Your task to perform on an android device: Open Youtube and go to "Your channel" Image 0: 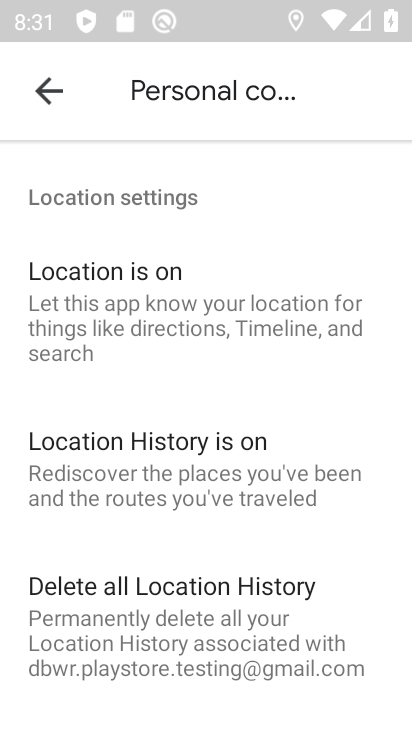
Step 0: press home button
Your task to perform on an android device: Open Youtube and go to "Your channel" Image 1: 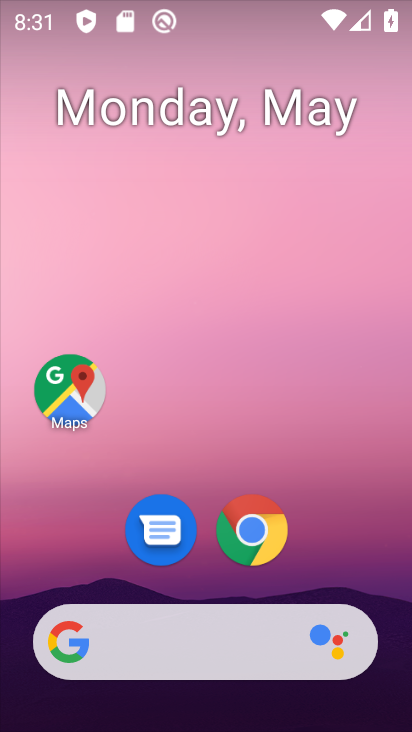
Step 1: drag from (402, 647) to (312, 117)
Your task to perform on an android device: Open Youtube and go to "Your channel" Image 2: 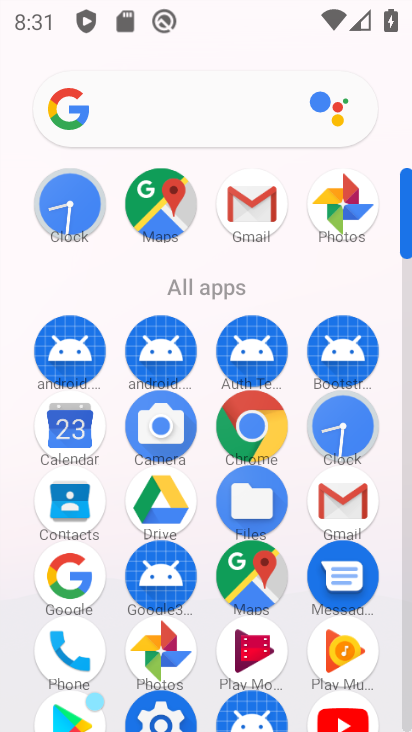
Step 2: click (350, 710)
Your task to perform on an android device: Open Youtube and go to "Your channel" Image 3: 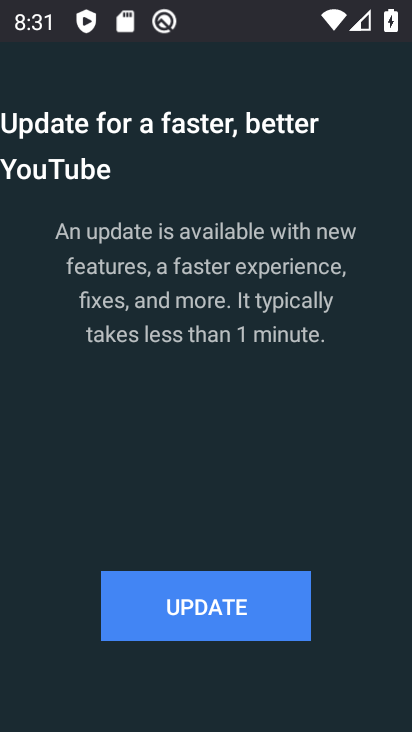
Step 3: click (240, 622)
Your task to perform on an android device: Open Youtube and go to "Your channel" Image 4: 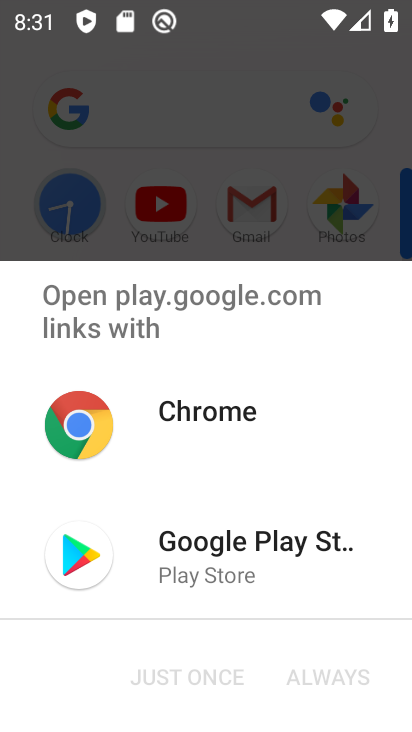
Step 4: click (246, 579)
Your task to perform on an android device: Open Youtube and go to "Your channel" Image 5: 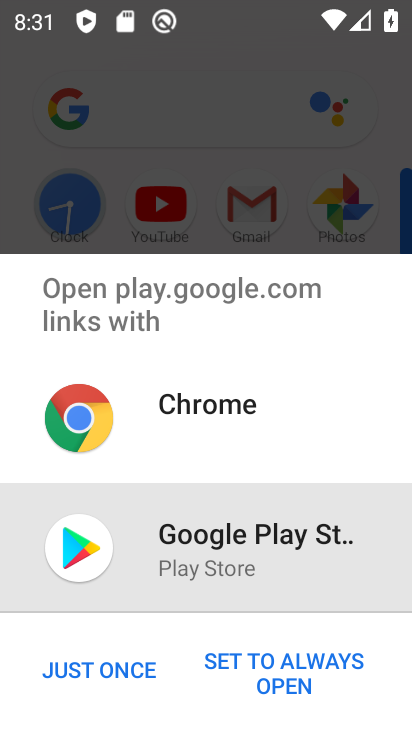
Step 5: click (132, 671)
Your task to perform on an android device: Open Youtube and go to "Your channel" Image 6: 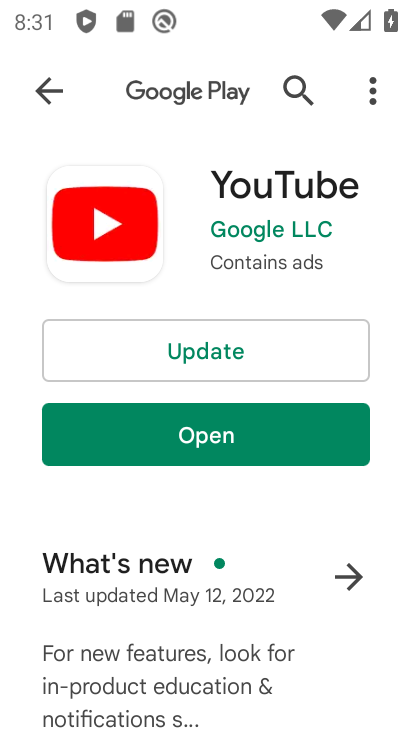
Step 6: click (303, 345)
Your task to perform on an android device: Open Youtube and go to "Your channel" Image 7: 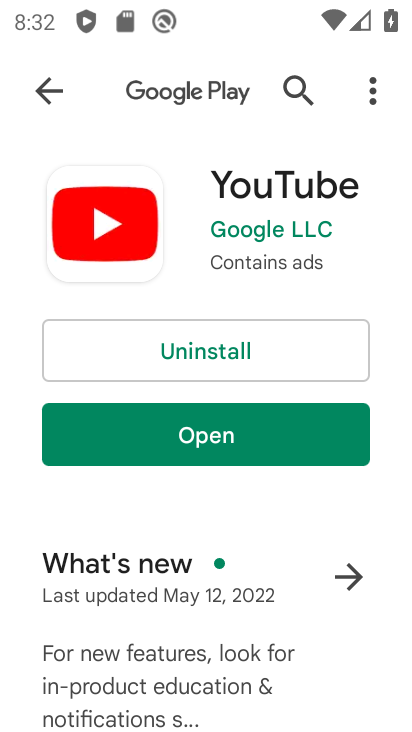
Step 7: click (329, 442)
Your task to perform on an android device: Open Youtube and go to "Your channel" Image 8: 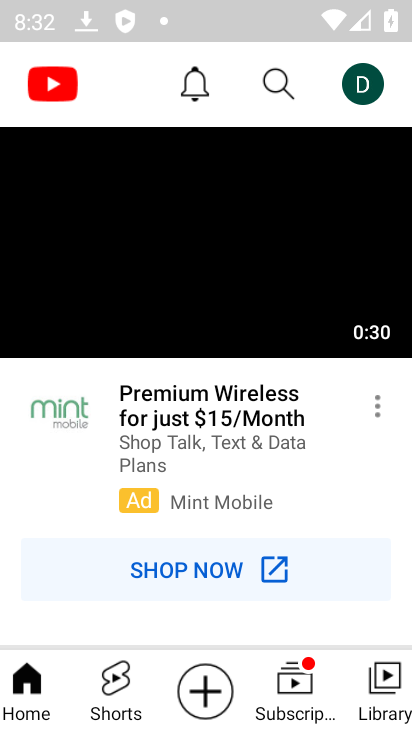
Step 8: click (360, 91)
Your task to perform on an android device: Open Youtube and go to "Your channel" Image 9: 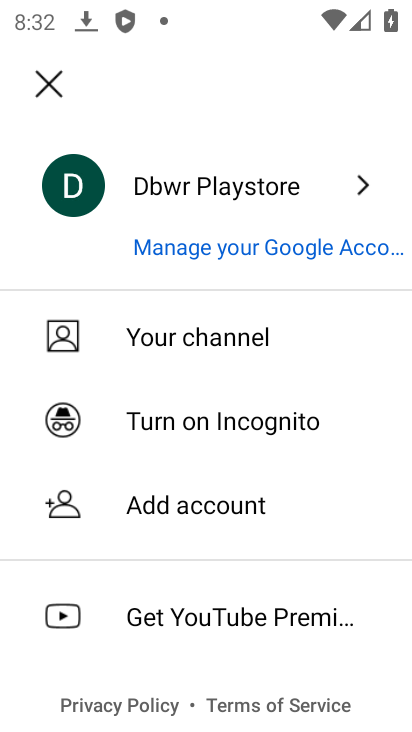
Step 9: click (222, 350)
Your task to perform on an android device: Open Youtube and go to "Your channel" Image 10: 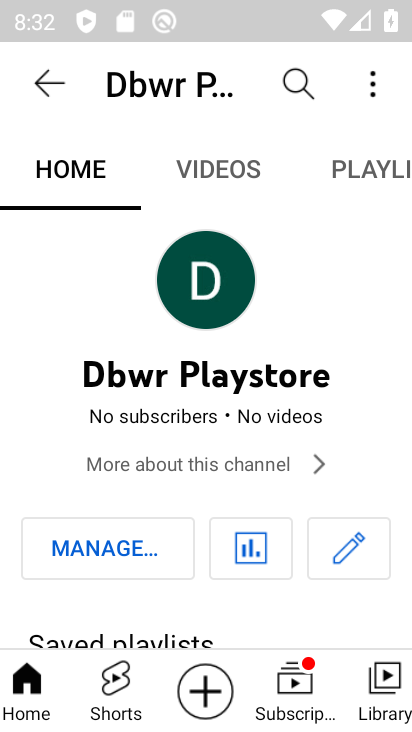
Step 10: task complete